Your task to perform on an android device: Open Chrome and go to the settings page Image 0: 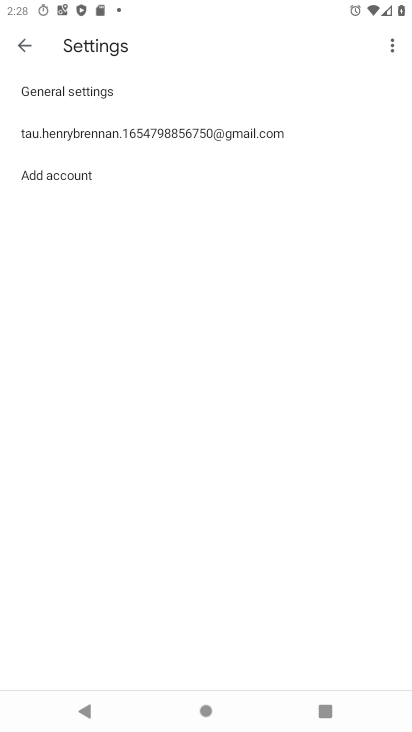
Step 0: drag from (253, 685) to (277, 232)
Your task to perform on an android device: Open Chrome and go to the settings page Image 1: 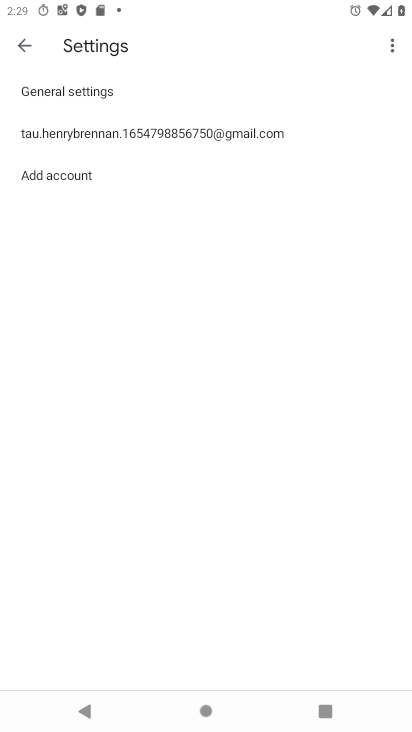
Step 1: drag from (207, 376) to (306, 190)
Your task to perform on an android device: Open Chrome and go to the settings page Image 2: 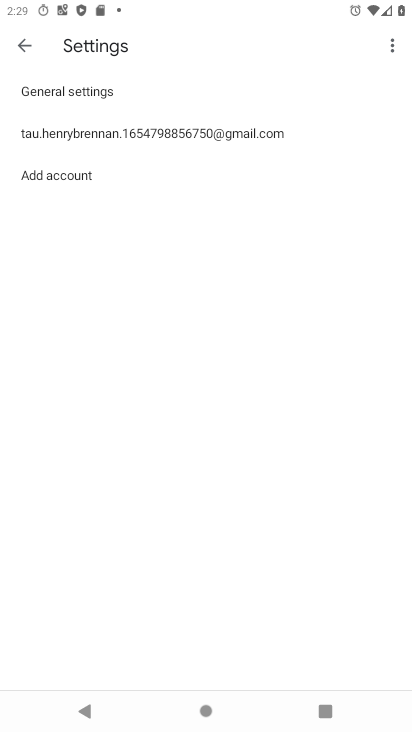
Step 2: press home button
Your task to perform on an android device: Open Chrome and go to the settings page Image 3: 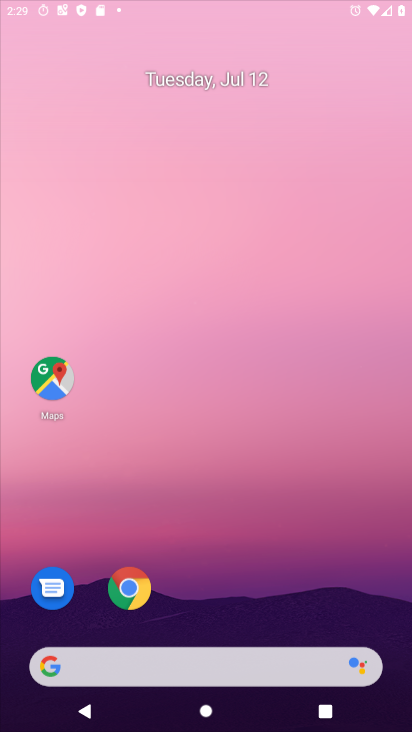
Step 3: drag from (114, 568) to (212, 106)
Your task to perform on an android device: Open Chrome and go to the settings page Image 4: 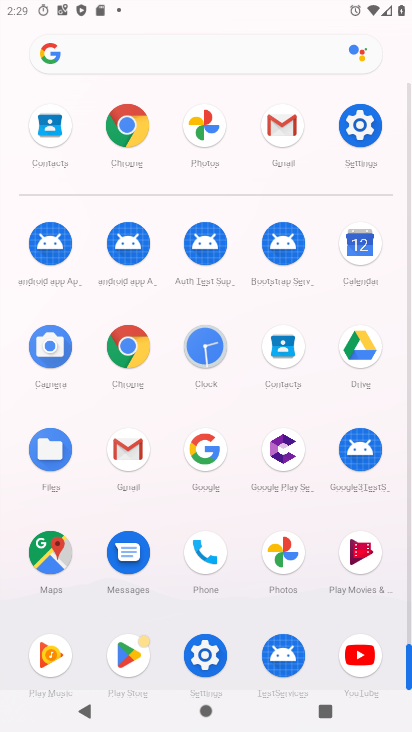
Step 4: click (129, 346)
Your task to perform on an android device: Open Chrome and go to the settings page Image 5: 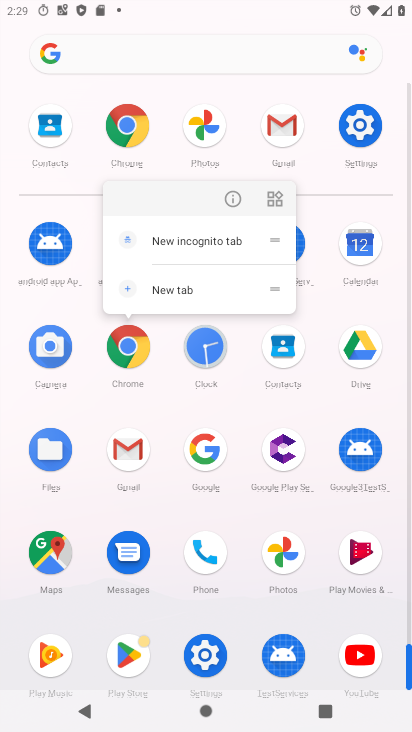
Step 5: click (239, 191)
Your task to perform on an android device: Open Chrome and go to the settings page Image 6: 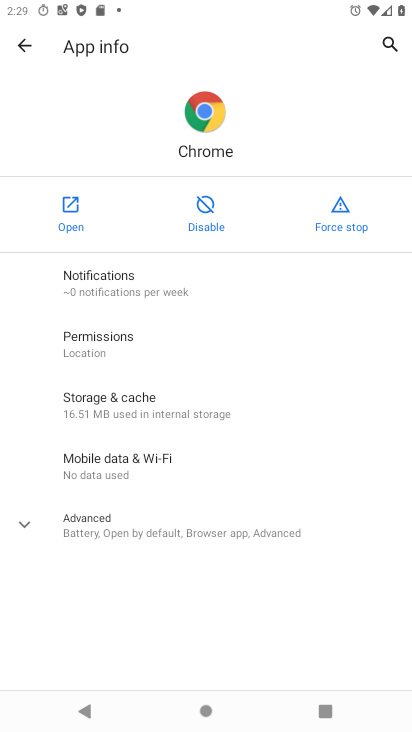
Step 6: click (55, 198)
Your task to perform on an android device: Open Chrome and go to the settings page Image 7: 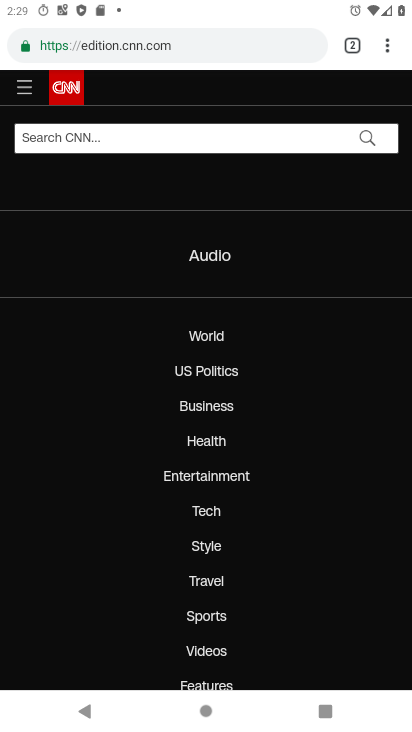
Step 7: click (381, 53)
Your task to perform on an android device: Open Chrome and go to the settings page Image 8: 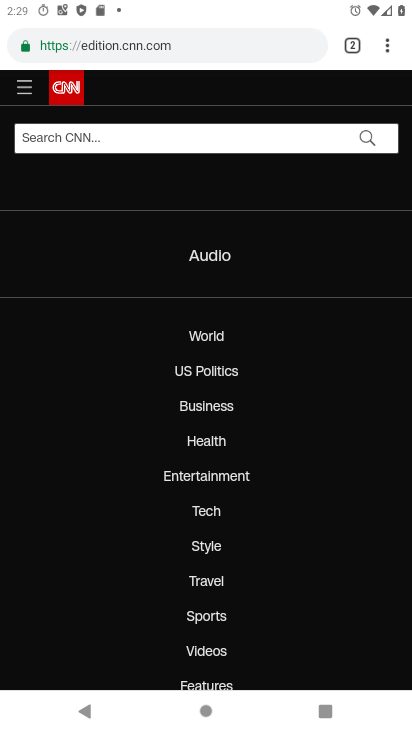
Step 8: click (387, 36)
Your task to perform on an android device: Open Chrome and go to the settings page Image 9: 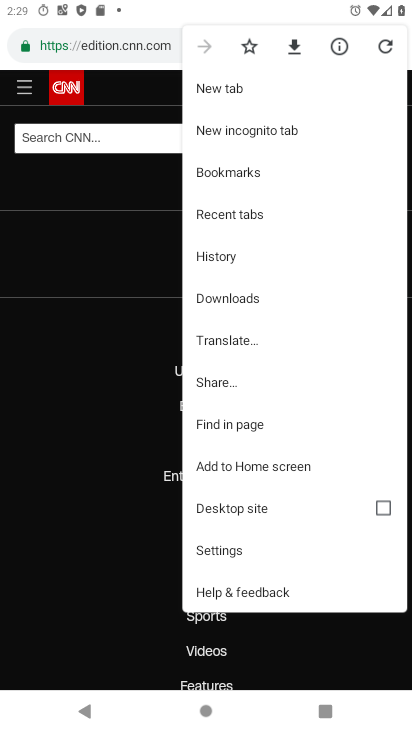
Step 9: click (227, 544)
Your task to perform on an android device: Open Chrome and go to the settings page Image 10: 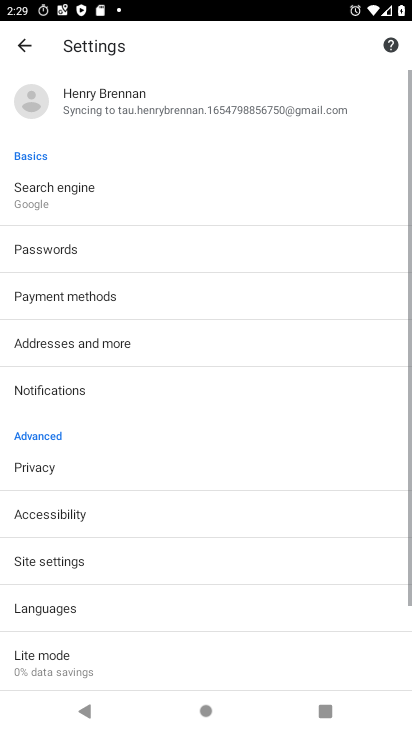
Step 10: task complete